Your task to perform on an android device: Search for razer blade on costco, select the first entry, and add it to the cart. Image 0: 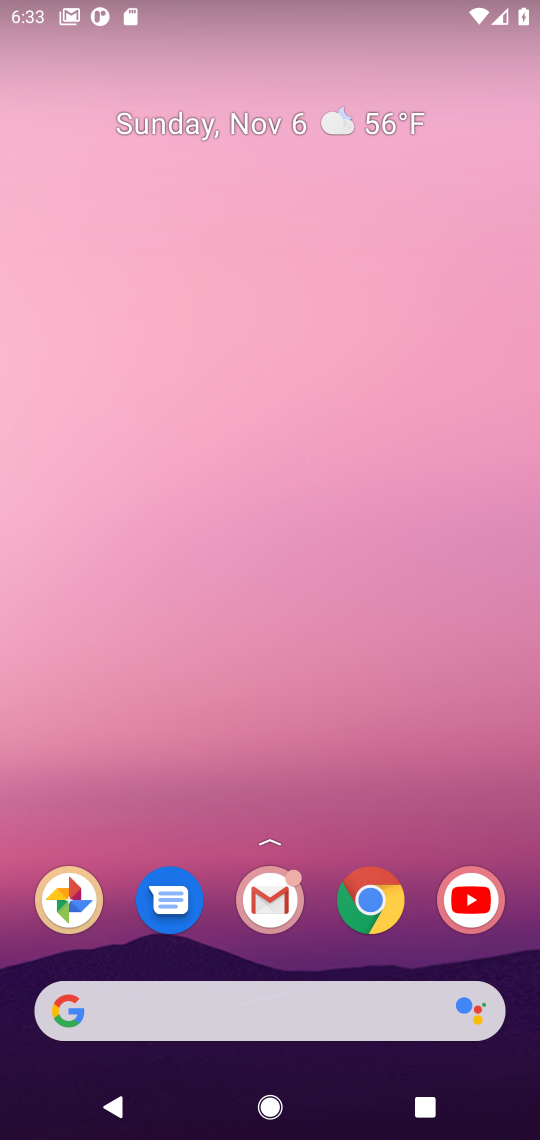
Step 0: drag from (314, 929) to (330, 135)
Your task to perform on an android device: Search for razer blade on costco, select the first entry, and add it to the cart. Image 1: 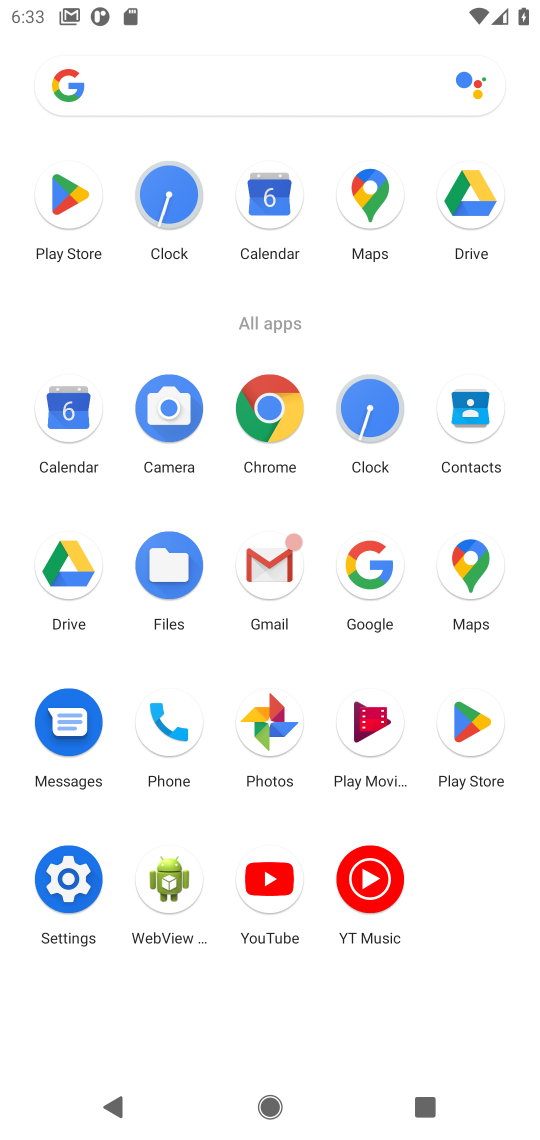
Step 1: click (273, 412)
Your task to perform on an android device: Search for razer blade on costco, select the first entry, and add it to the cart. Image 2: 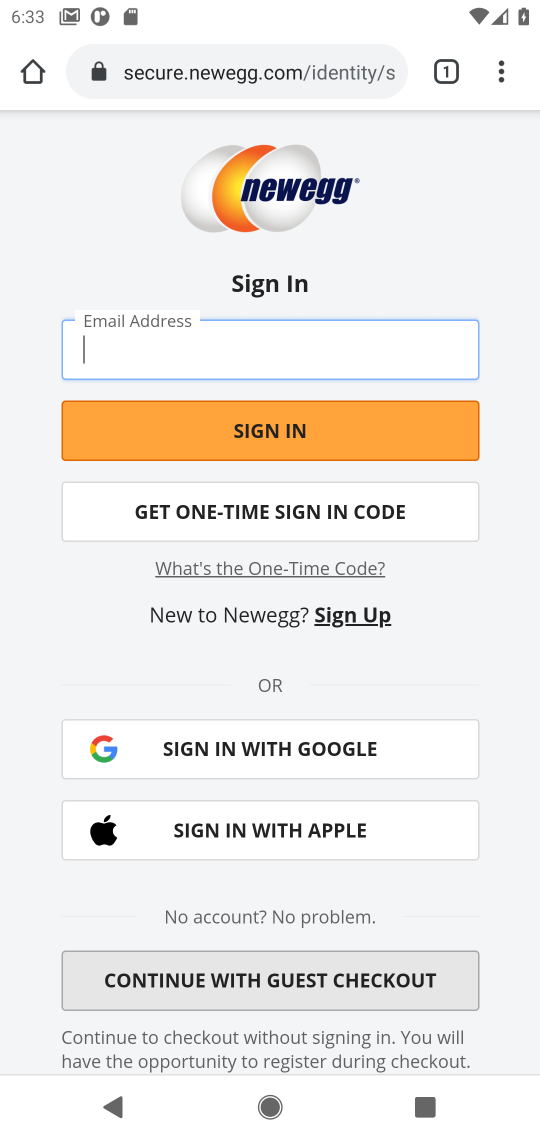
Step 2: click (333, 64)
Your task to perform on an android device: Search for razer blade on costco, select the first entry, and add it to the cart. Image 3: 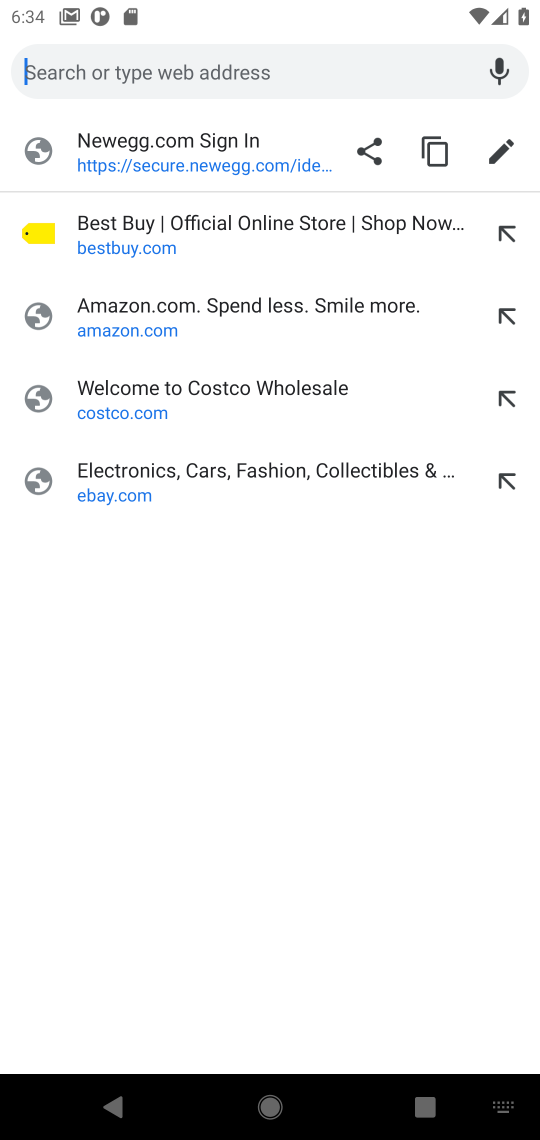
Step 3: type "costco.com"
Your task to perform on an android device: Search for razer blade on costco, select the first entry, and add it to the cart. Image 4: 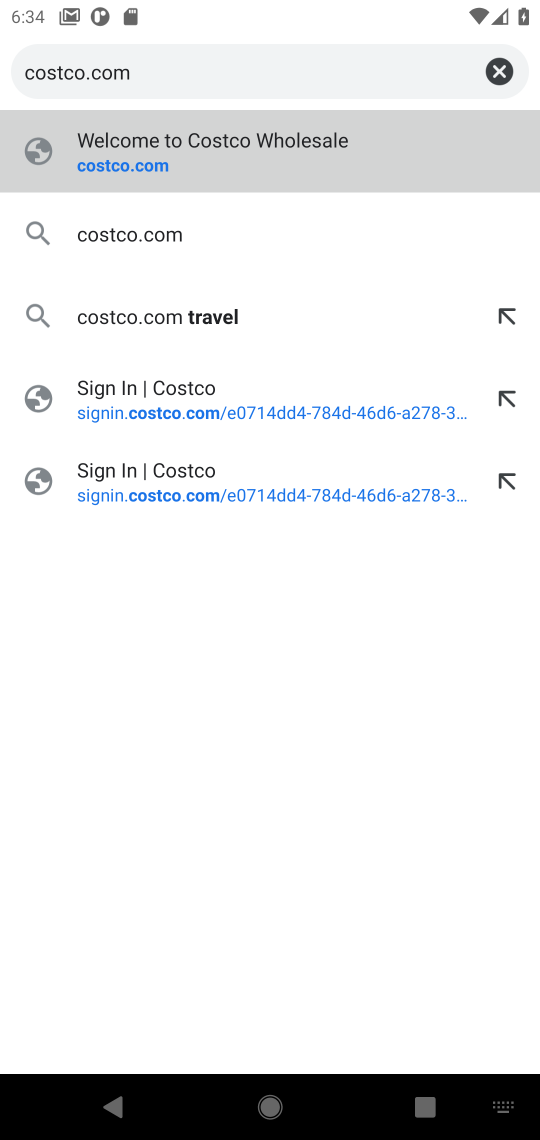
Step 4: press enter
Your task to perform on an android device: Search for razer blade on costco, select the first entry, and add it to the cart. Image 5: 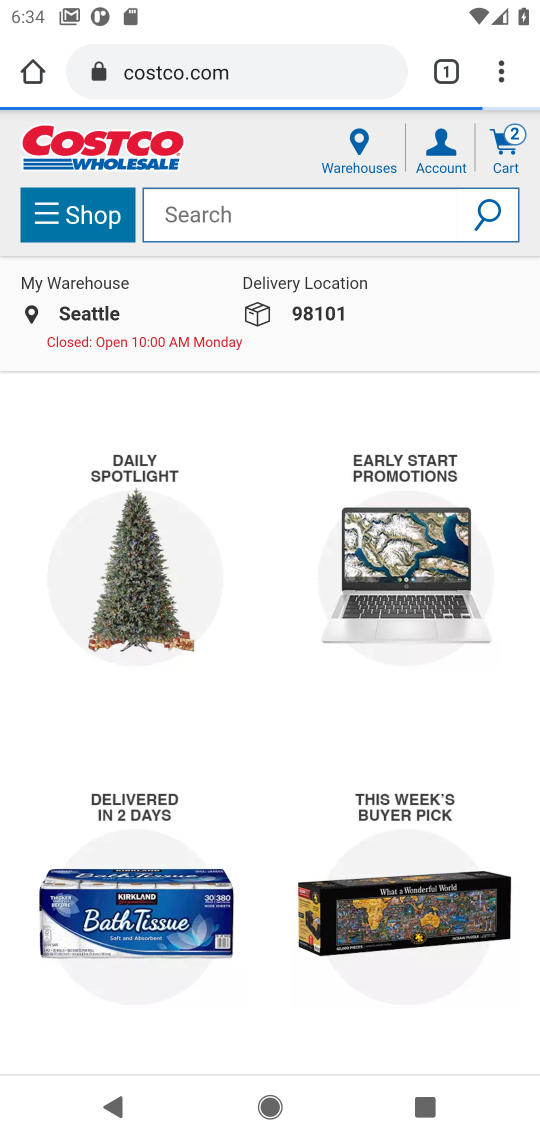
Step 5: click (285, 212)
Your task to perform on an android device: Search for razer blade on costco, select the first entry, and add it to the cart. Image 6: 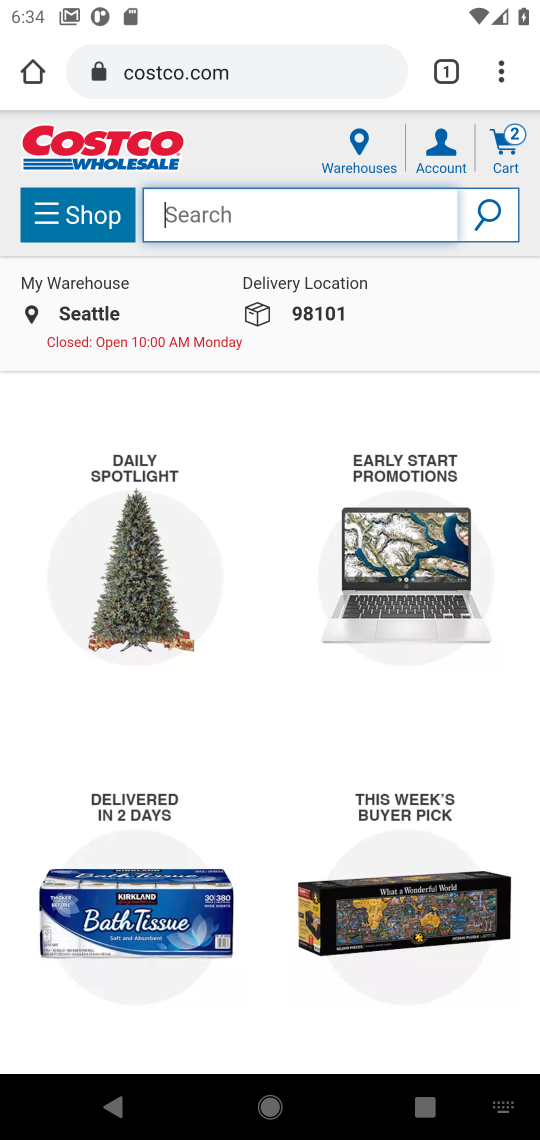
Step 6: type "razer blade"
Your task to perform on an android device: Search for razer blade on costco, select the first entry, and add it to the cart. Image 7: 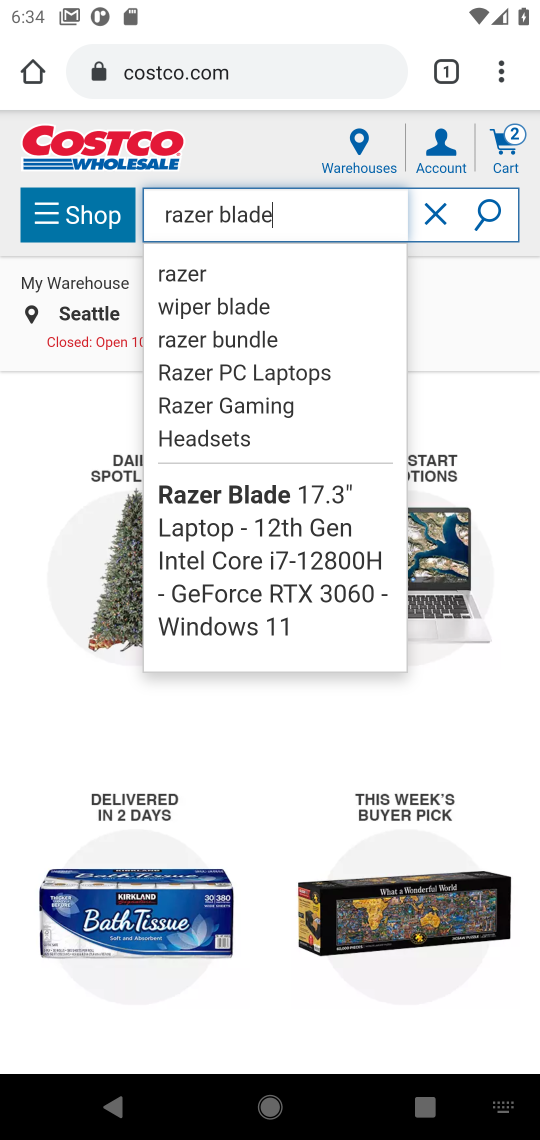
Step 7: press enter
Your task to perform on an android device: Search for razer blade on costco, select the first entry, and add it to the cart. Image 8: 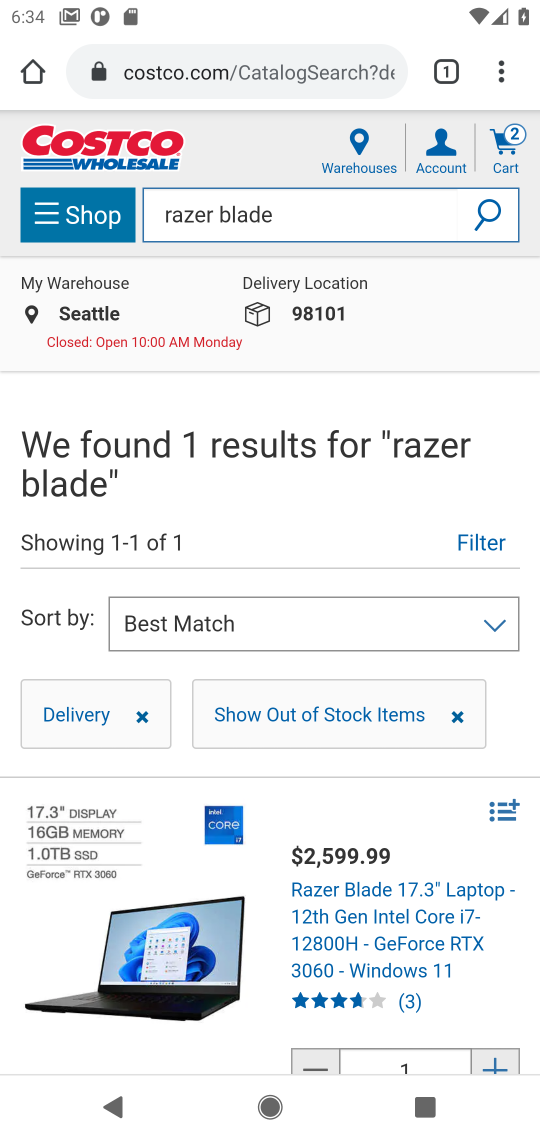
Step 8: drag from (407, 912) to (379, 515)
Your task to perform on an android device: Search for razer blade on costco, select the first entry, and add it to the cart. Image 9: 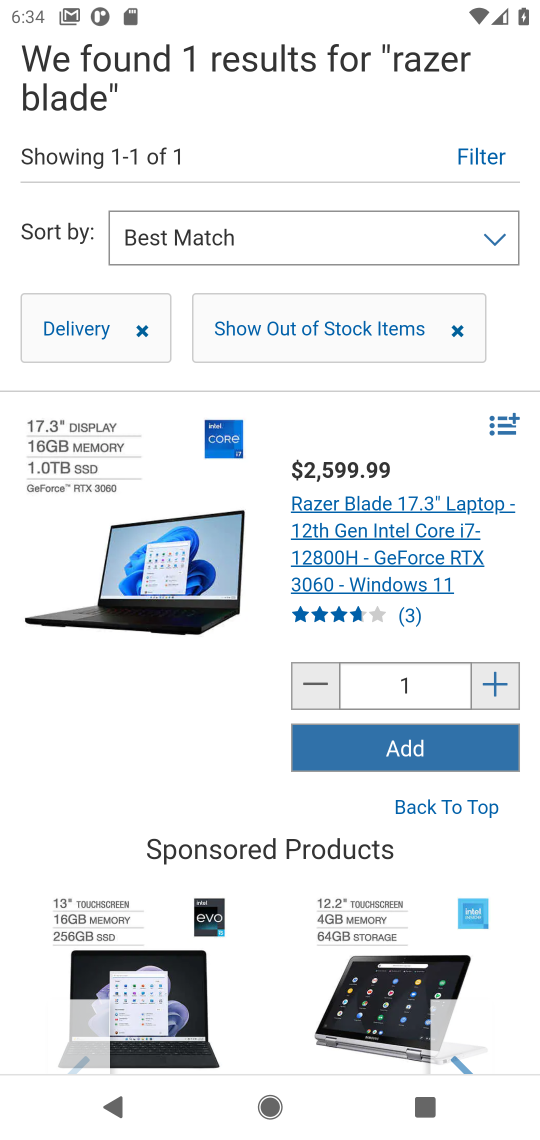
Step 9: click (417, 747)
Your task to perform on an android device: Search for razer blade on costco, select the first entry, and add it to the cart. Image 10: 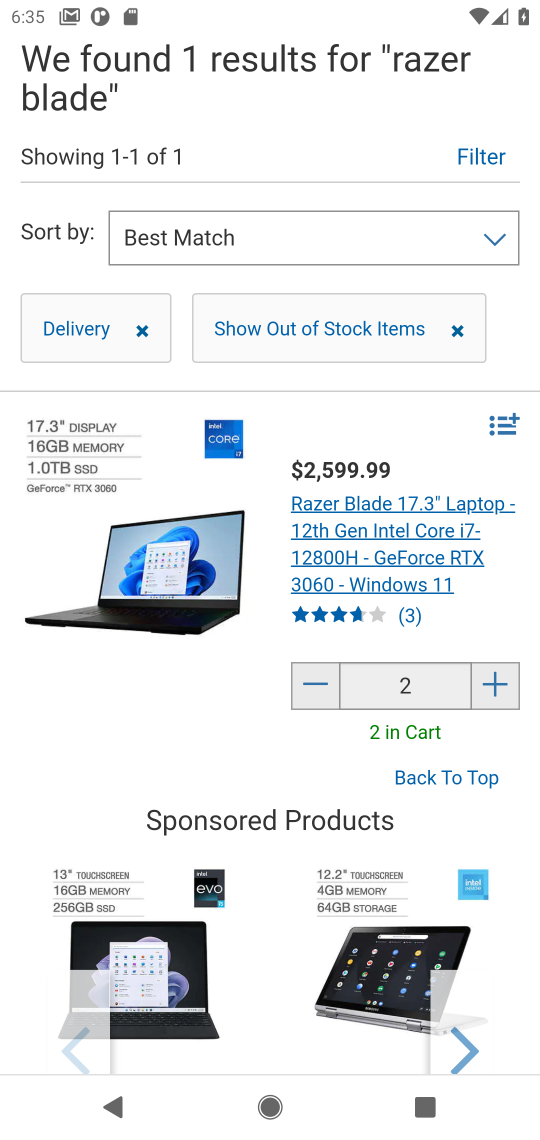
Step 10: task complete